Your task to perform on an android device: toggle data saver in the chrome app Image 0: 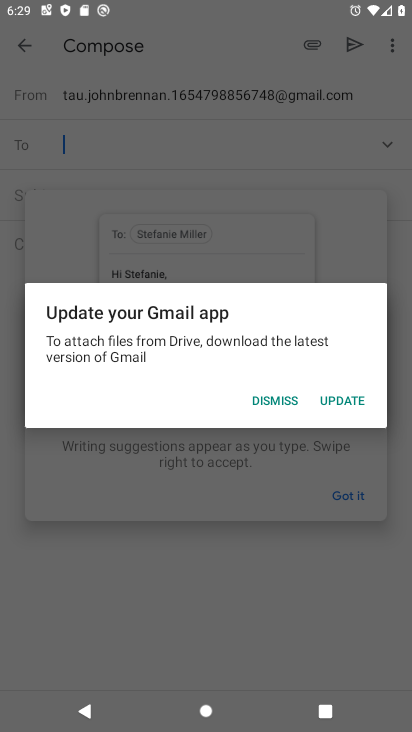
Step 0: press home button
Your task to perform on an android device: toggle data saver in the chrome app Image 1: 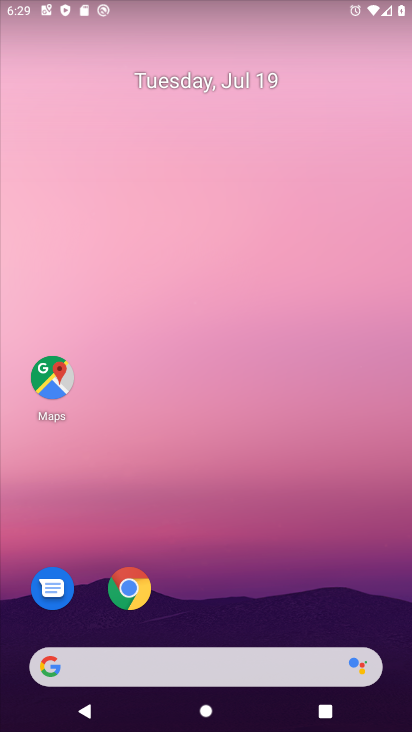
Step 1: click (140, 600)
Your task to perform on an android device: toggle data saver in the chrome app Image 2: 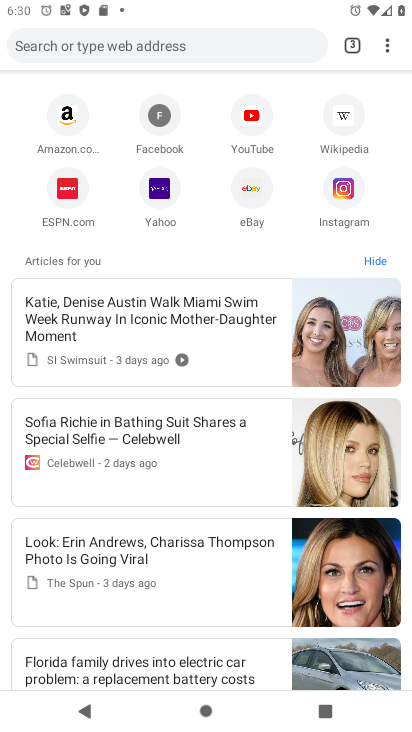
Step 2: click (394, 52)
Your task to perform on an android device: toggle data saver in the chrome app Image 3: 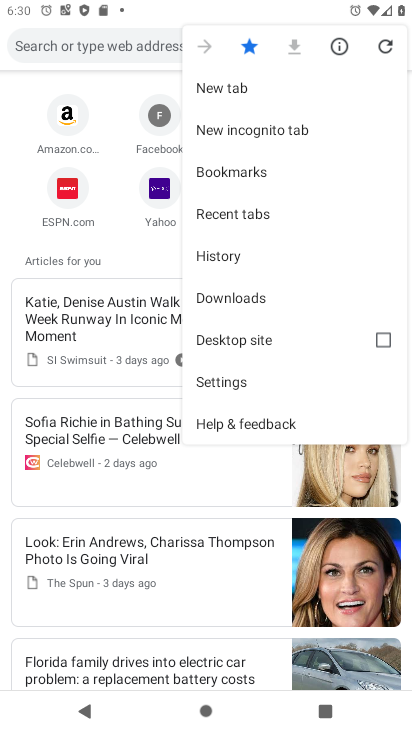
Step 3: click (221, 380)
Your task to perform on an android device: toggle data saver in the chrome app Image 4: 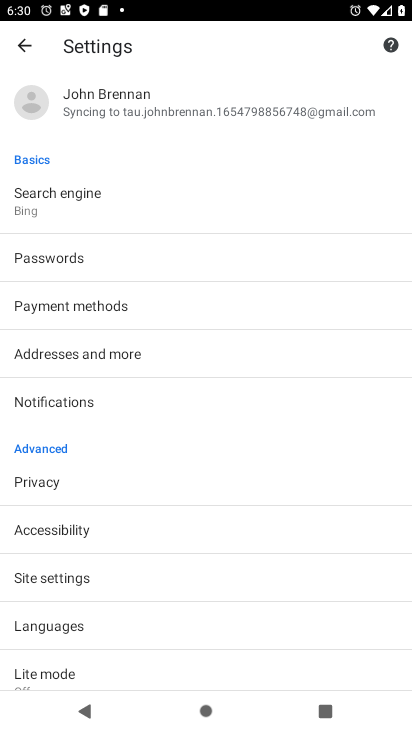
Step 4: click (106, 661)
Your task to perform on an android device: toggle data saver in the chrome app Image 5: 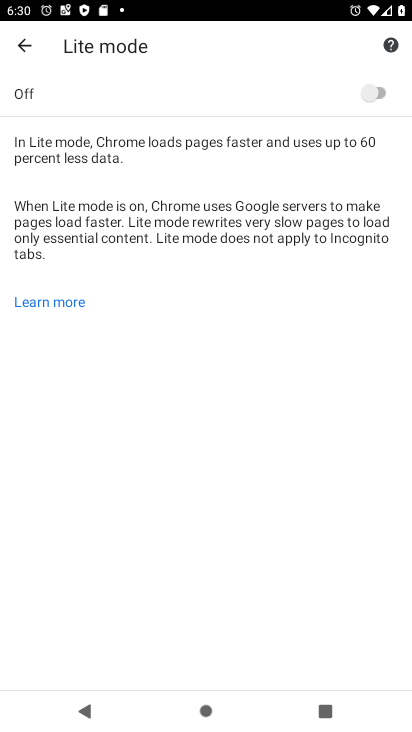
Step 5: click (380, 87)
Your task to perform on an android device: toggle data saver in the chrome app Image 6: 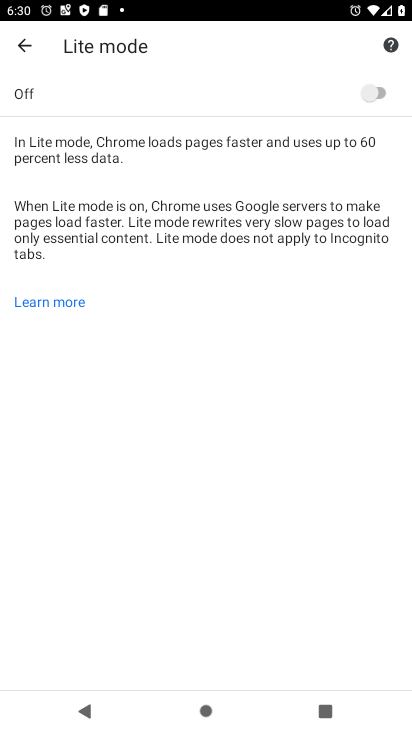
Step 6: click (380, 87)
Your task to perform on an android device: toggle data saver in the chrome app Image 7: 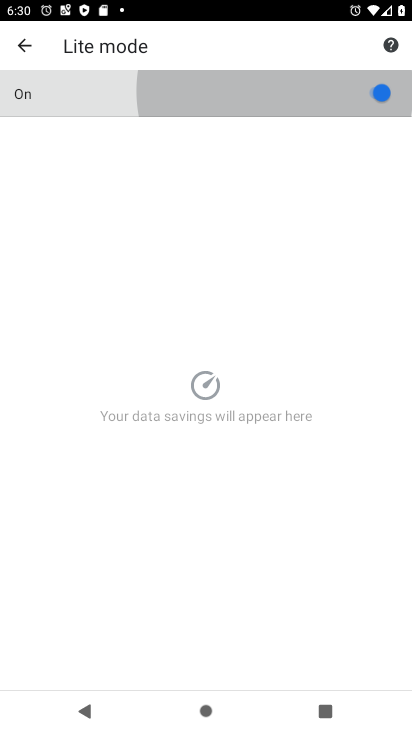
Step 7: click (380, 87)
Your task to perform on an android device: toggle data saver in the chrome app Image 8: 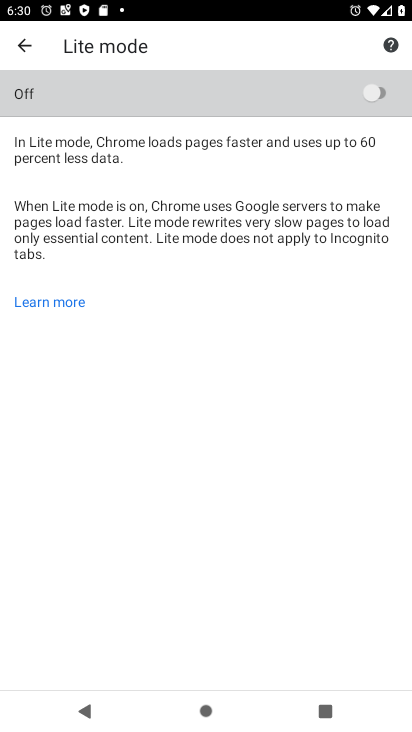
Step 8: click (380, 87)
Your task to perform on an android device: toggle data saver in the chrome app Image 9: 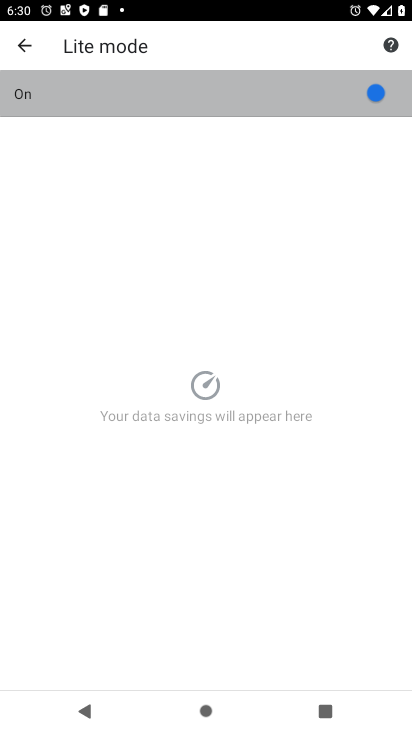
Step 9: click (380, 87)
Your task to perform on an android device: toggle data saver in the chrome app Image 10: 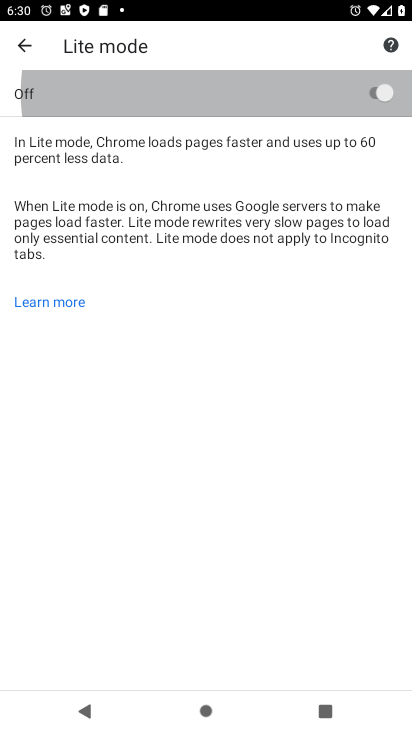
Step 10: click (380, 87)
Your task to perform on an android device: toggle data saver in the chrome app Image 11: 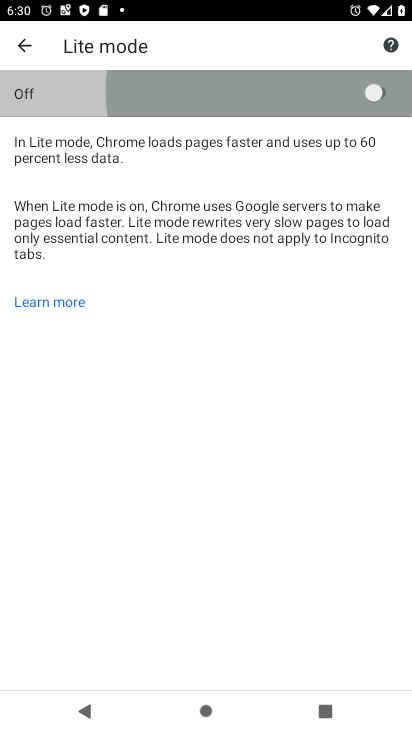
Step 11: click (380, 87)
Your task to perform on an android device: toggle data saver in the chrome app Image 12: 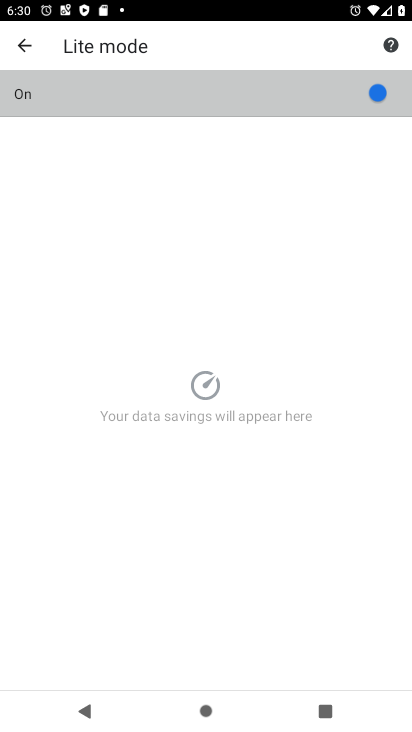
Step 12: click (380, 87)
Your task to perform on an android device: toggle data saver in the chrome app Image 13: 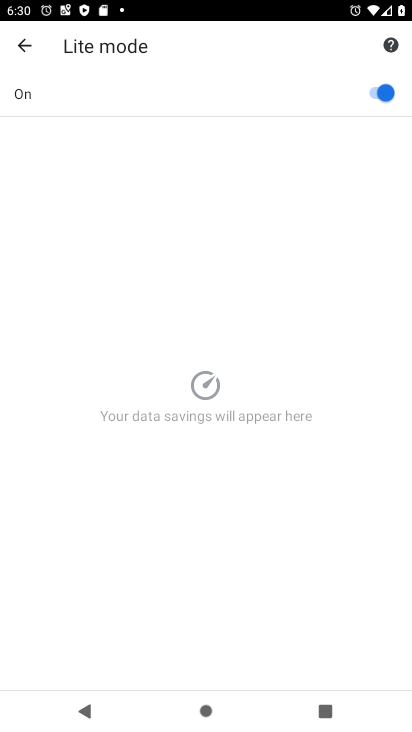
Step 13: task complete